Your task to perform on an android device: Open notification settings Image 0: 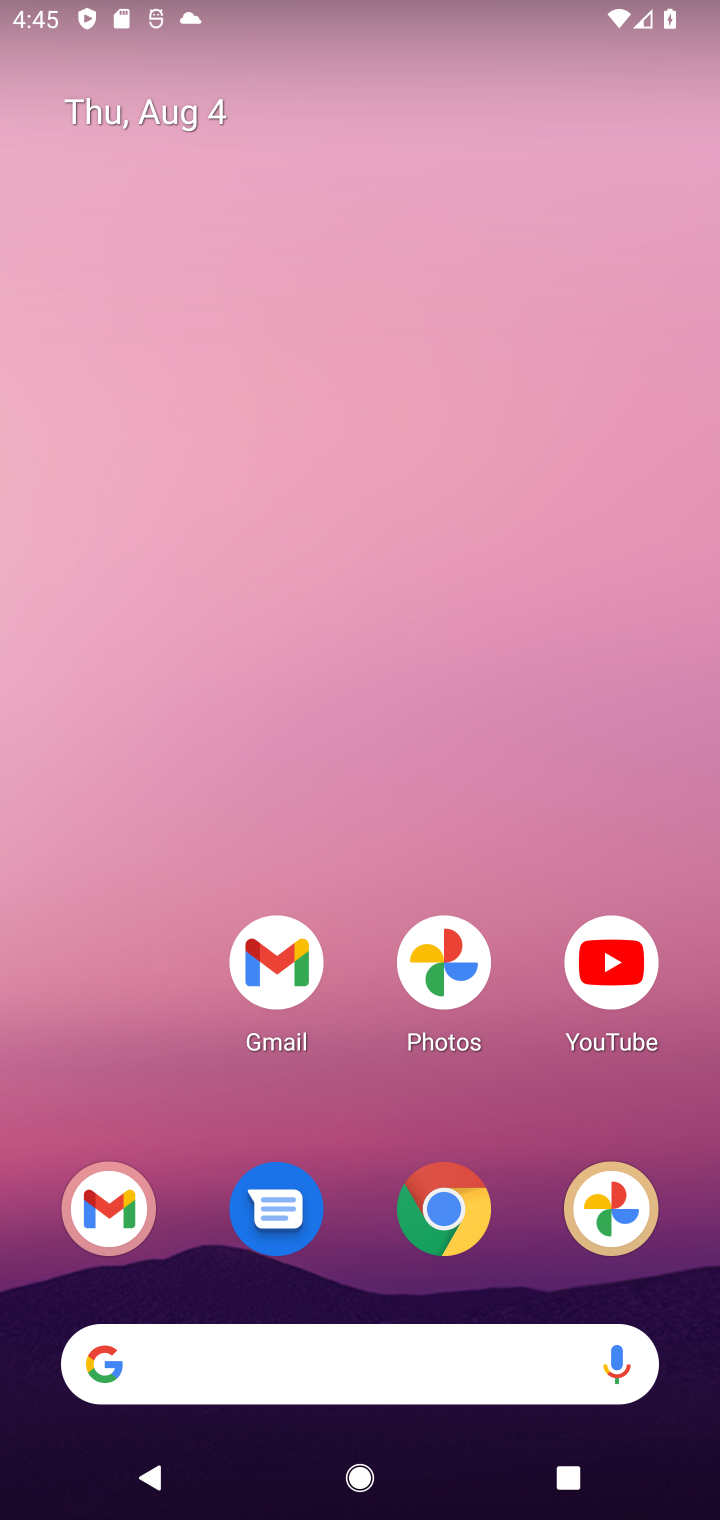
Step 0: drag from (403, 881) to (468, 158)
Your task to perform on an android device: Open notification settings Image 1: 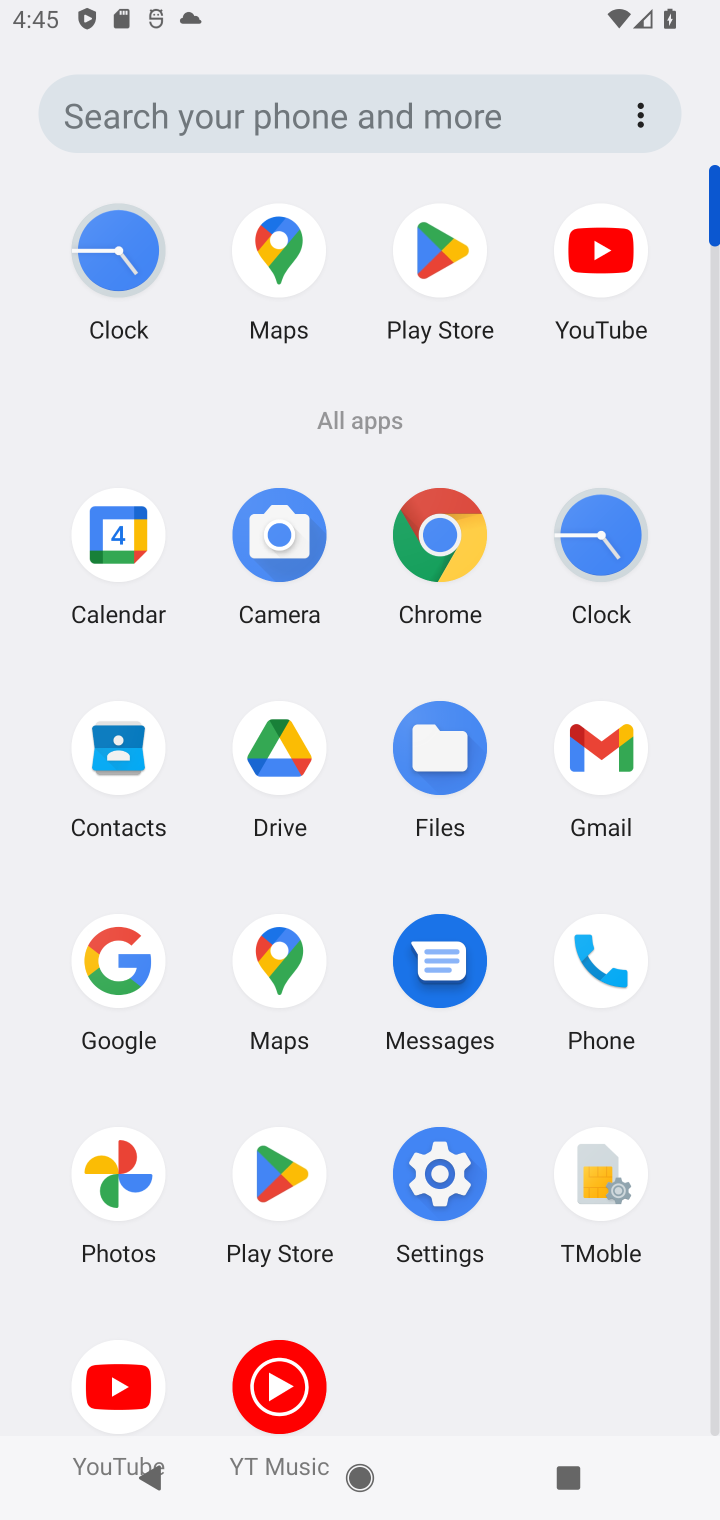
Step 1: click (439, 1238)
Your task to perform on an android device: Open notification settings Image 2: 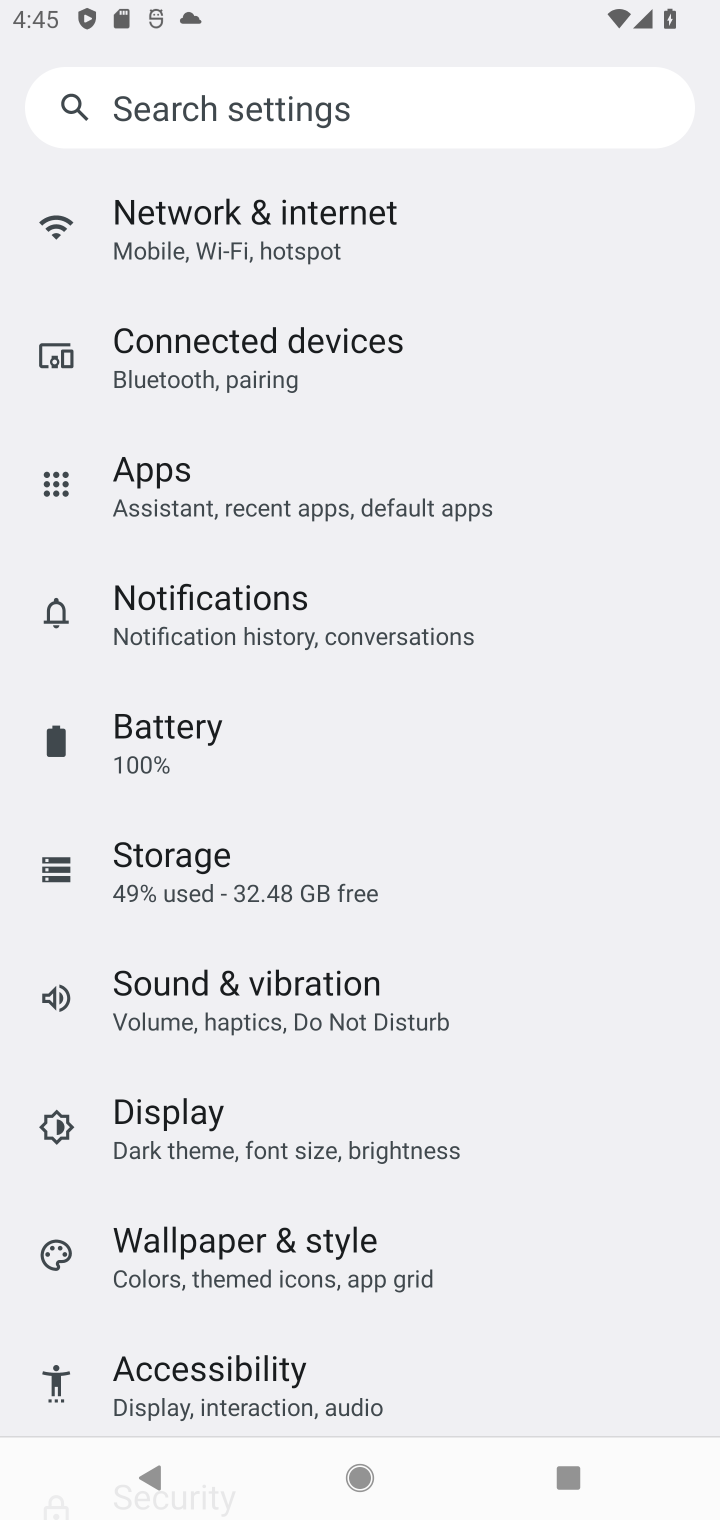
Step 2: click (270, 633)
Your task to perform on an android device: Open notification settings Image 3: 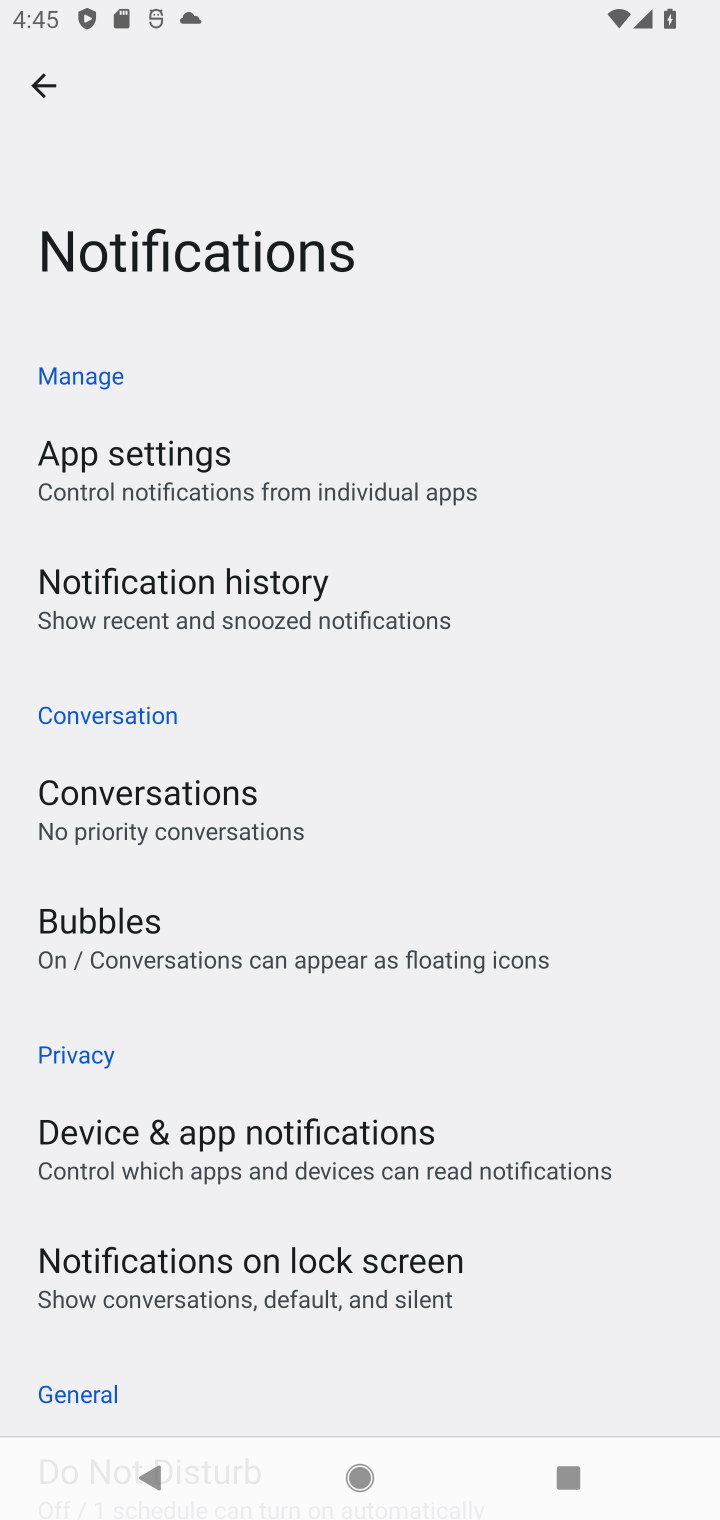
Step 3: task complete